Your task to perform on an android device: turn pop-ups off in chrome Image 0: 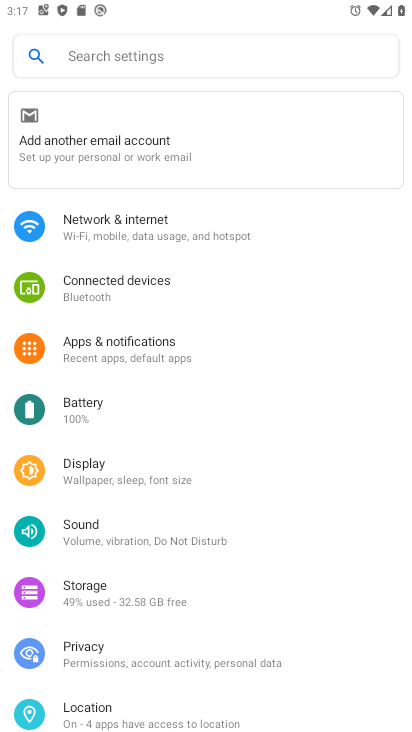
Step 0: task complete